Your task to perform on an android device: set default search engine in the chrome app Image 0: 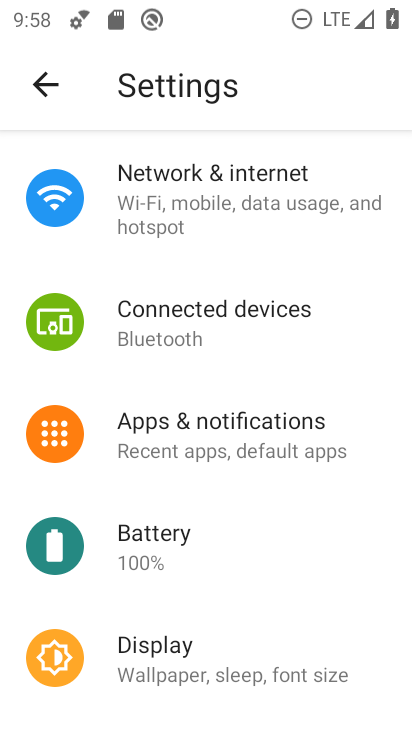
Step 0: press home button
Your task to perform on an android device: set default search engine in the chrome app Image 1: 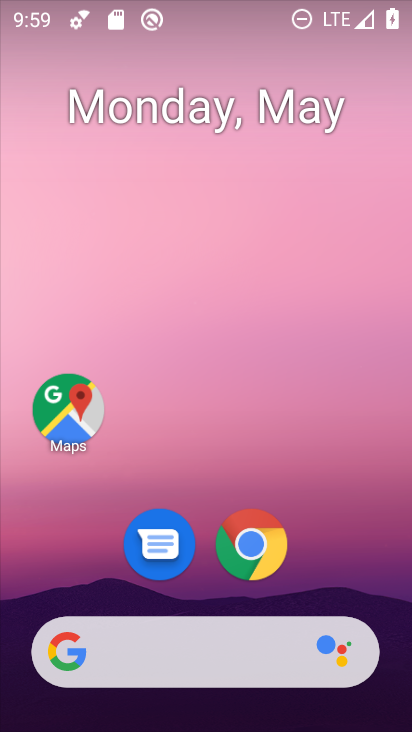
Step 1: drag from (362, 563) to (348, 87)
Your task to perform on an android device: set default search engine in the chrome app Image 2: 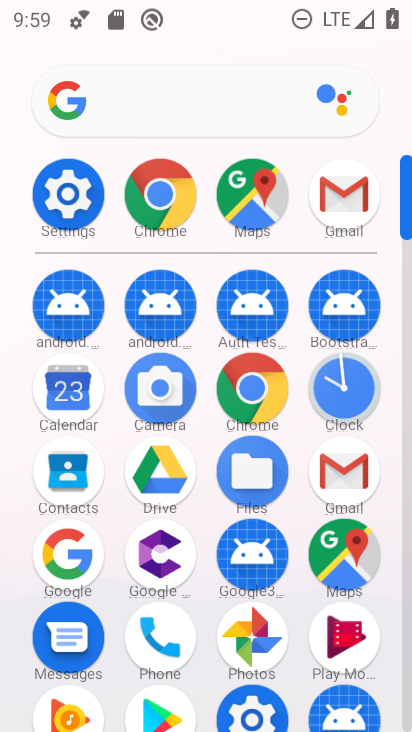
Step 2: click (65, 207)
Your task to perform on an android device: set default search engine in the chrome app Image 3: 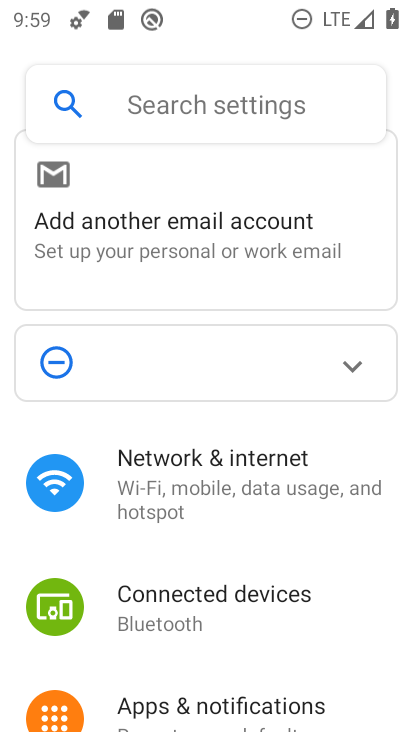
Step 3: press home button
Your task to perform on an android device: set default search engine in the chrome app Image 4: 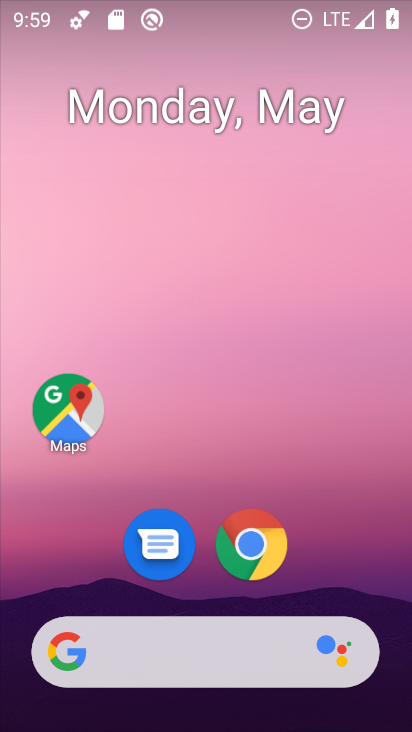
Step 4: drag from (367, 538) to (378, 184)
Your task to perform on an android device: set default search engine in the chrome app Image 5: 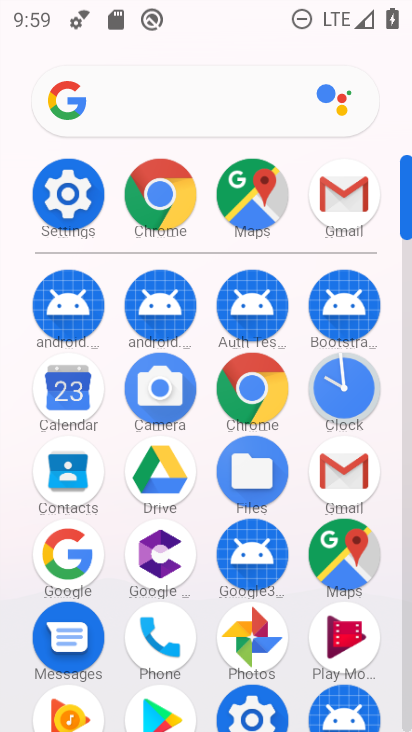
Step 5: click (270, 402)
Your task to perform on an android device: set default search engine in the chrome app Image 6: 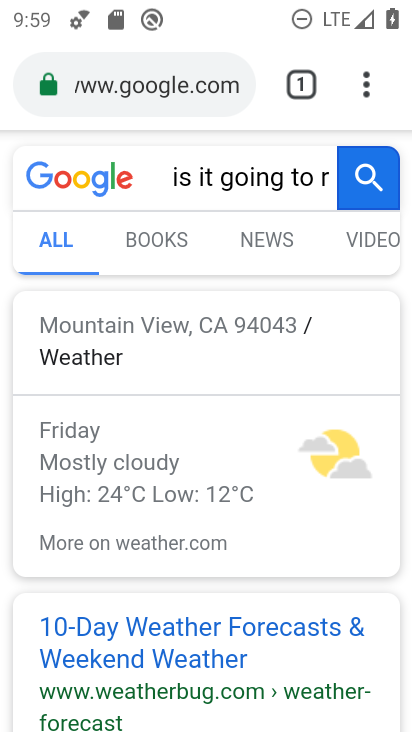
Step 6: drag from (360, 97) to (133, 599)
Your task to perform on an android device: set default search engine in the chrome app Image 7: 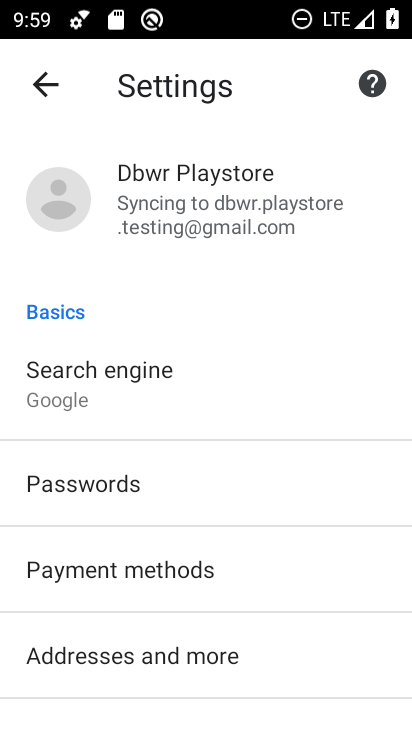
Step 7: click (103, 379)
Your task to perform on an android device: set default search engine in the chrome app Image 8: 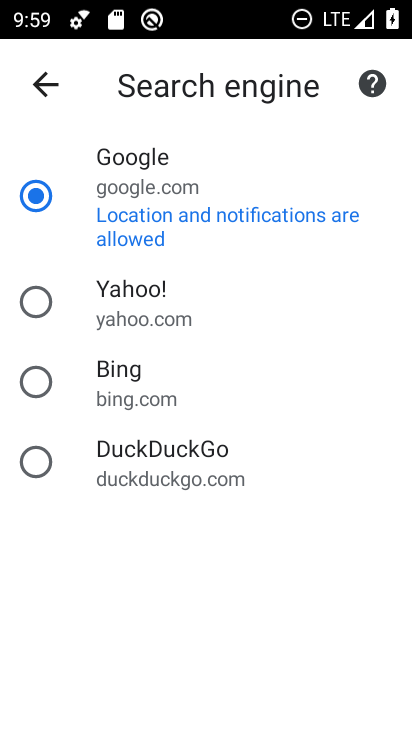
Step 8: click (38, 312)
Your task to perform on an android device: set default search engine in the chrome app Image 9: 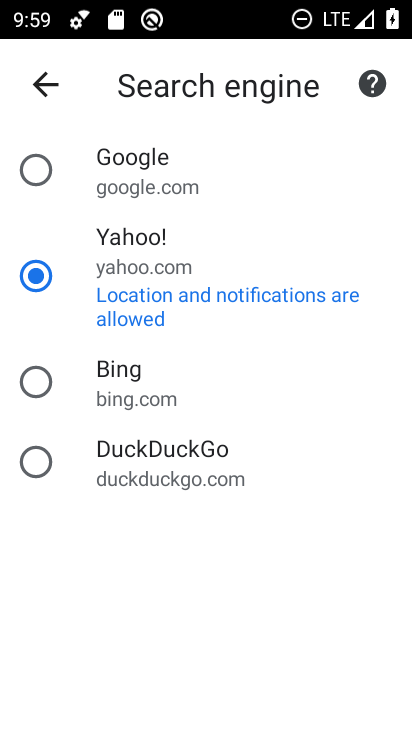
Step 9: task complete